Your task to perform on an android device: Show me recent news Image 0: 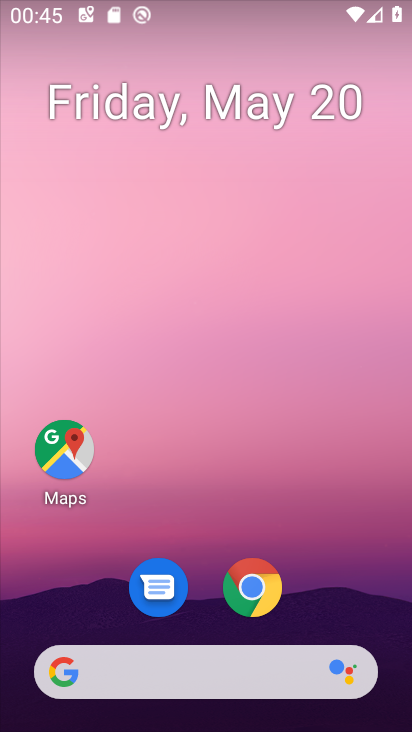
Step 0: drag from (4, 275) to (409, 450)
Your task to perform on an android device: Show me recent news Image 1: 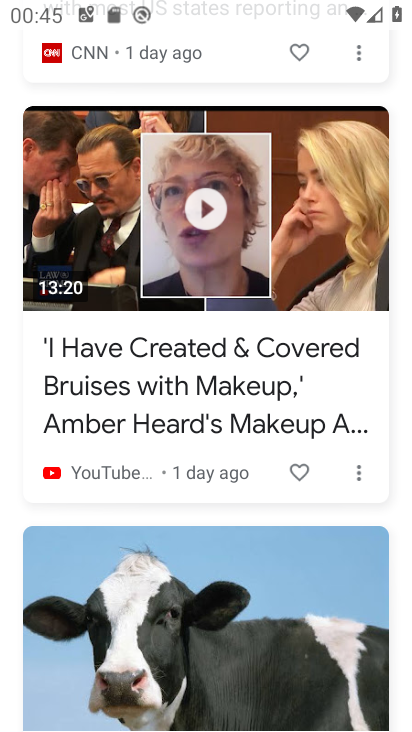
Step 1: task complete